Your task to perform on an android device: delete the emails in spam in the gmail app Image 0: 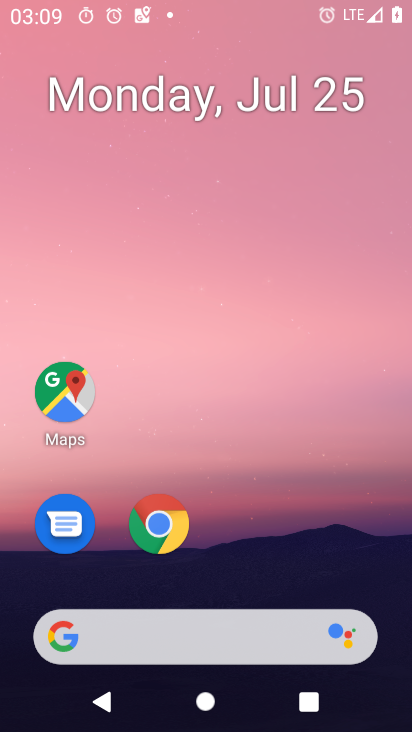
Step 0: press home button
Your task to perform on an android device: delete the emails in spam in the gmail app Image 1: 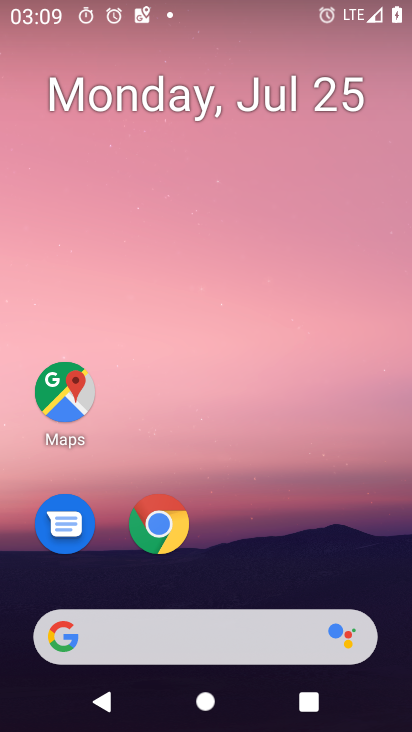
Step 1: drag from (271, 577) to (233, 104)
Your task to perform on an android device: delete the emails in spam in the gmail app Image 2: 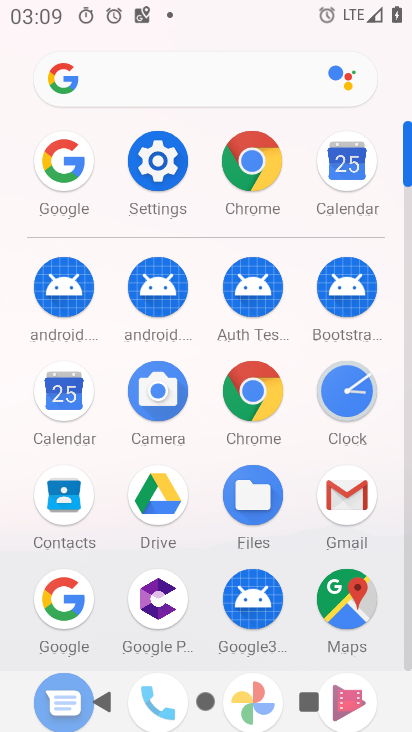
Step 2: click (341, 494)
Your task to perform on an android device: delete the emails in spam in the gmail app Image 3: 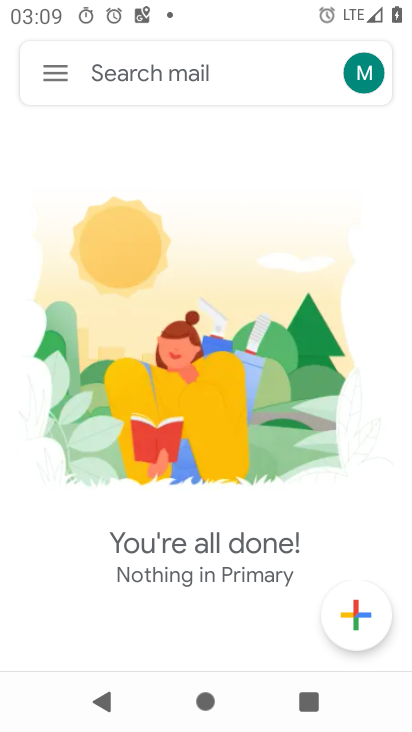
Step 3: click (51, 67)
Your task to perform on an android device: delete the emails in spam in the gmail app Image 4: 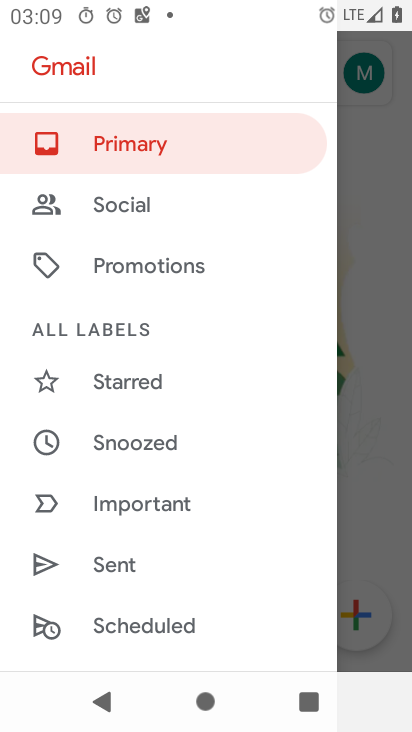
Step 4: drag from (221, 571) to (236, 93)
Your task to perform on an android device: delete the emails in spam in the gmail app Image 5: 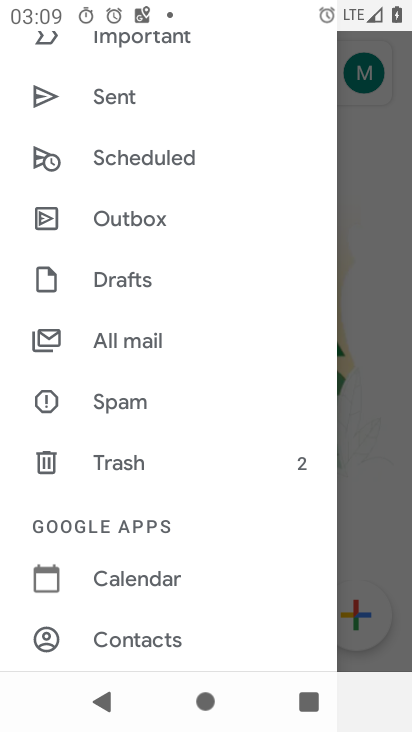
Step 5: click (127, 401)
Your task to perform on an android device: delete the emails in spam in the gmail app Image 6: 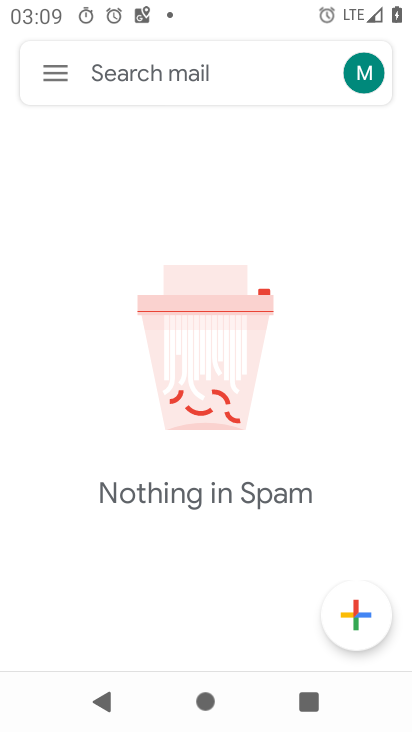
Step 6: task complete